Your task to perform on an android device: Open Google Chrome Image 0: 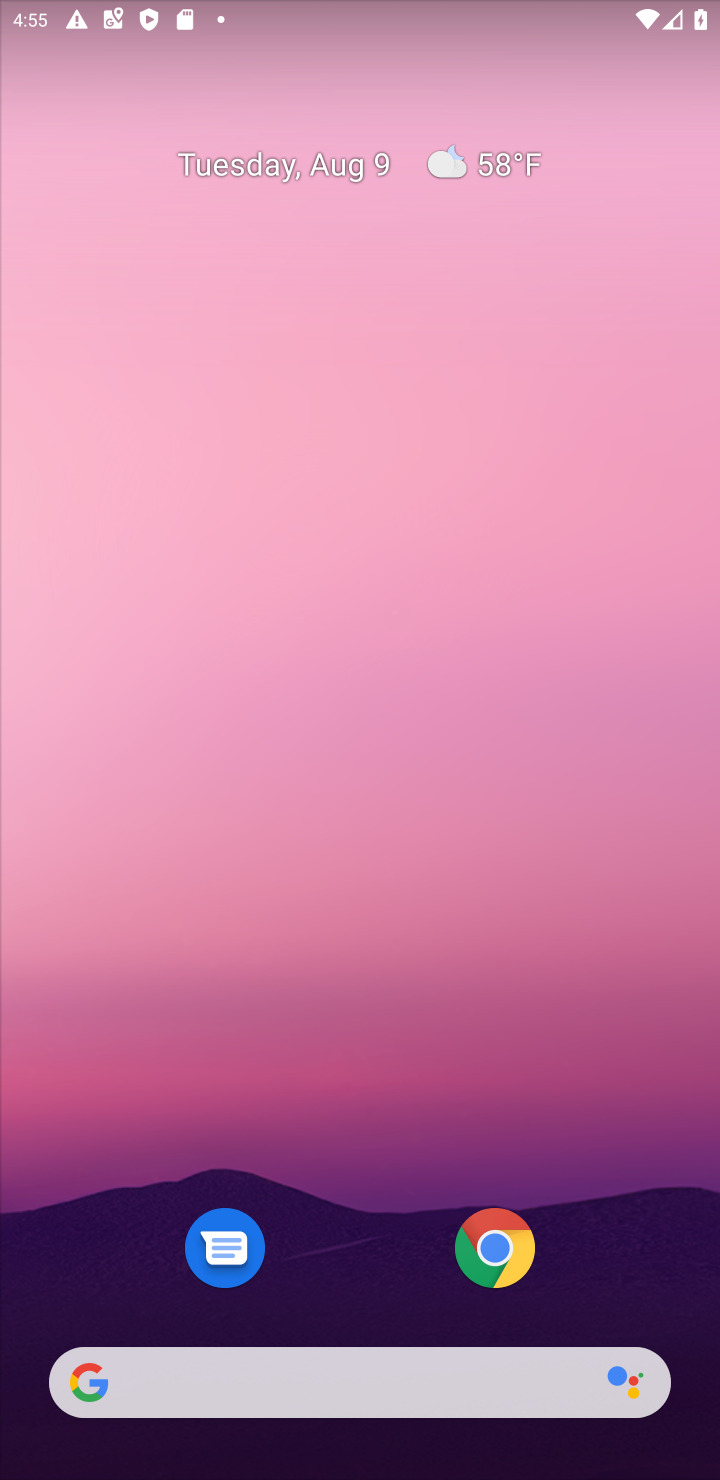
Step 0: drag from (368, 1176) to (267, 148)
Your task to perform on an android device: Open Google Chrome Image 1: 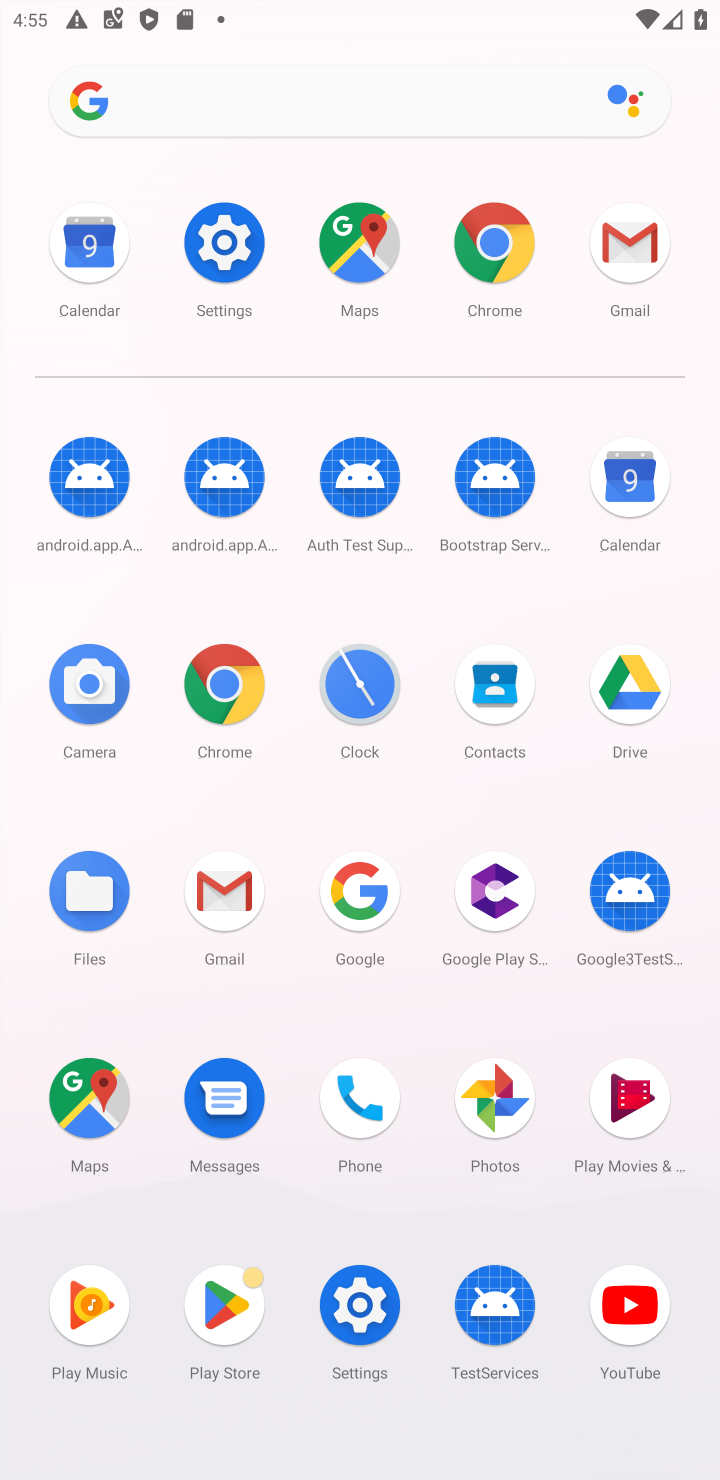
Step 1: click (234, 691)
Your task to perform on an android device: Open Google Chrome Image 2: 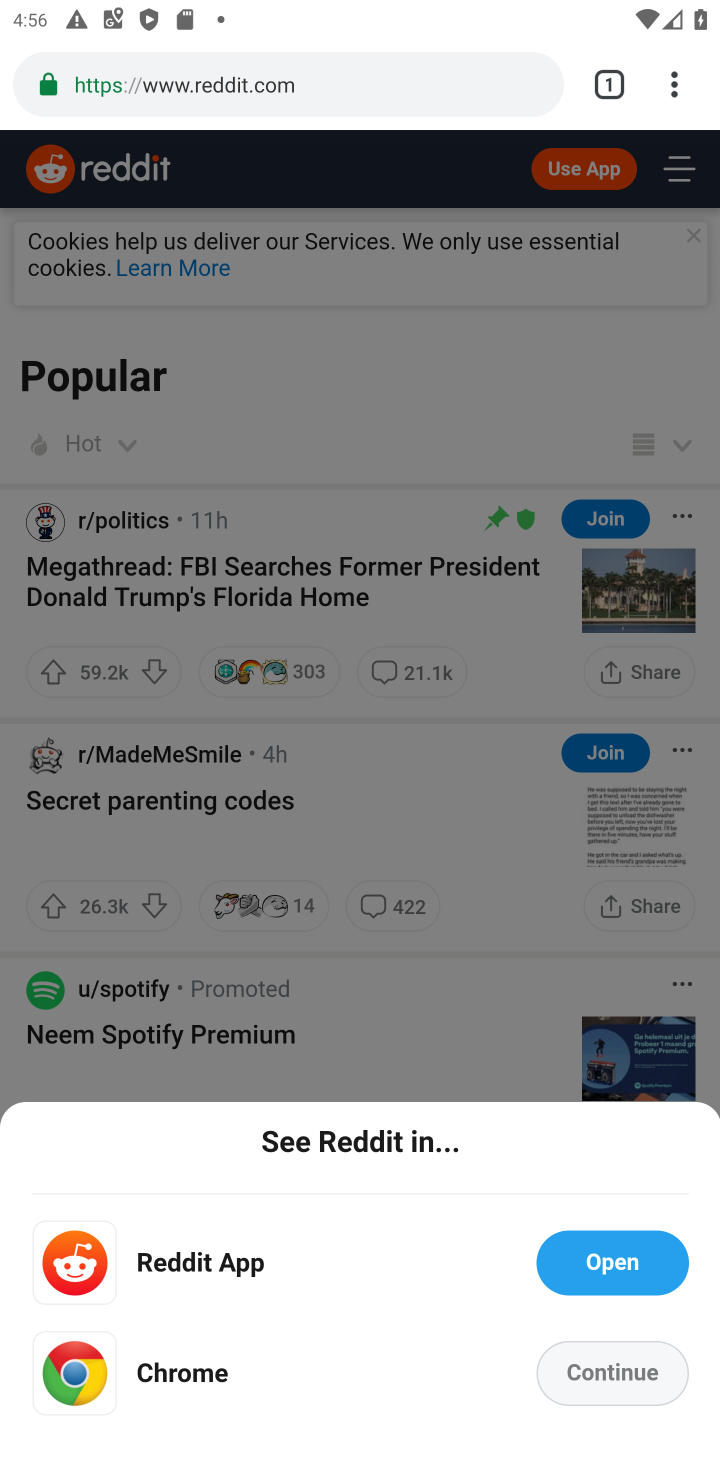
Step 2: task complete